Your task to perform on an android device: Set the phone to "Do not disturb". Image 0: 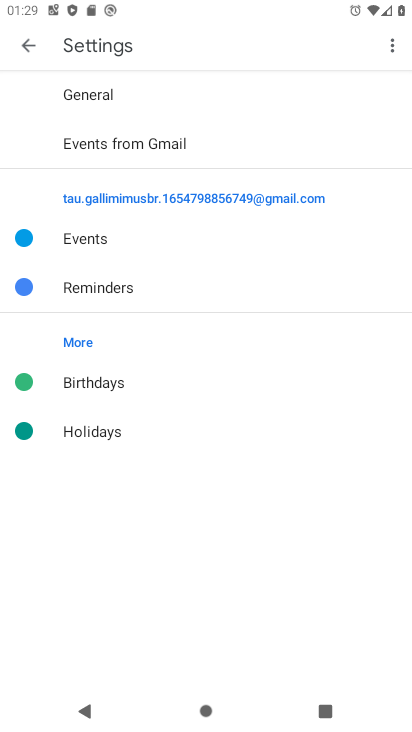
Step 0: press home button
Your task to perform on an android device: Set the phone to "Do not disturb". Image 1: 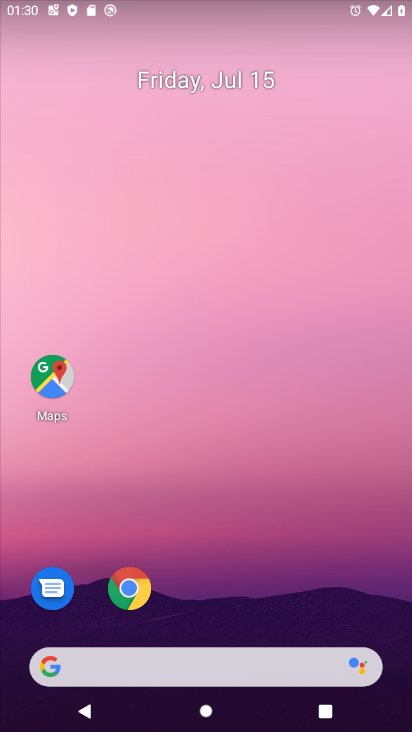
Step 1: drag from (385, 639) to (293, 10)
Your task to perform on an android device: Set the phone to "Do not disturb". Image 2: 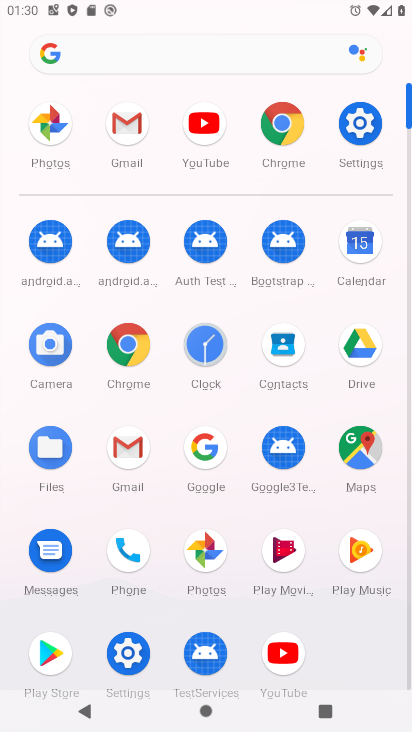
Step 2: click (133, 655)
Your task to perform on an android device: Set the phone to "Do not disturb". Image 3: 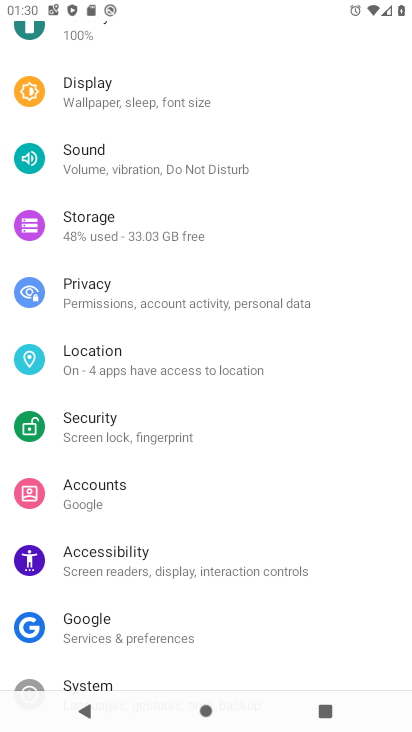
Step 3: click (103, 157)
Your task to perform on an android device: Set the phone to "Do not disturb". Image 4: 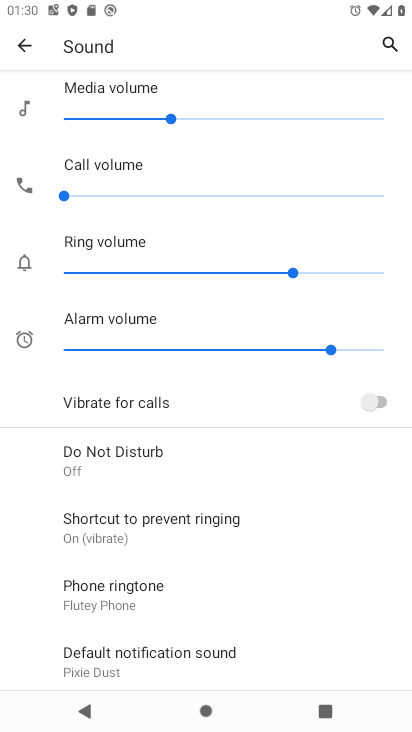
Step 4: click (74, 470)
Your task to perform on an android device: Set the phone to "Do not disturb". Image 5: 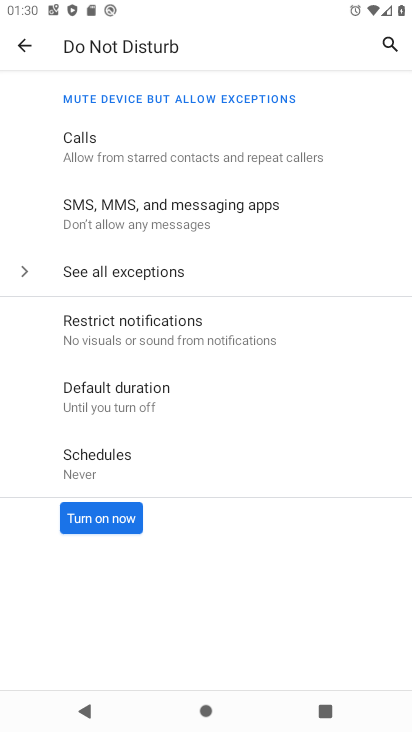
Step 5: click (94, 519)
Your task to perform on an android device: Set the phone to "Do not disturb". Image 6: 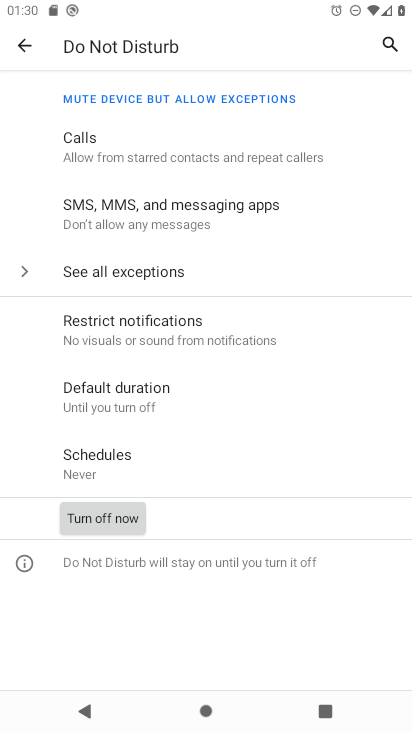
Step 6: task complete